Your task to perform on an android device: change timer sound Image 0: 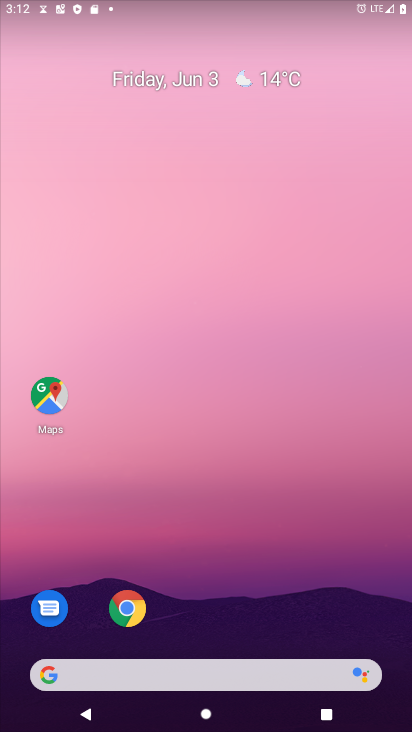
Step 0: drag from (223, 664) to (193, 208)
Your task to perform on an android device: change timer sound Image 1: 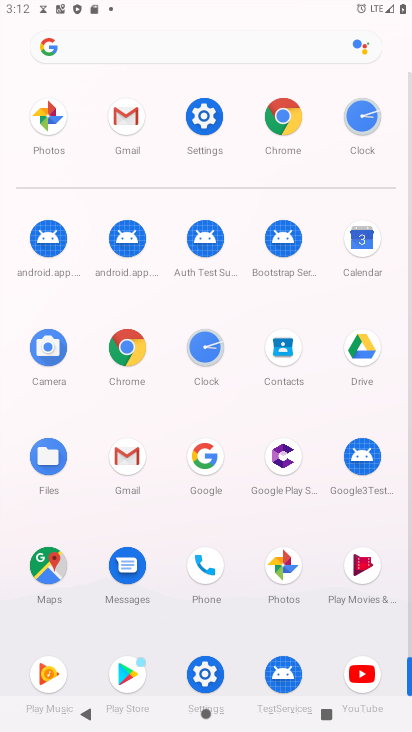
Step 1: click (348, 120)
Your task to perform on an android device: change timer sound Image 2: 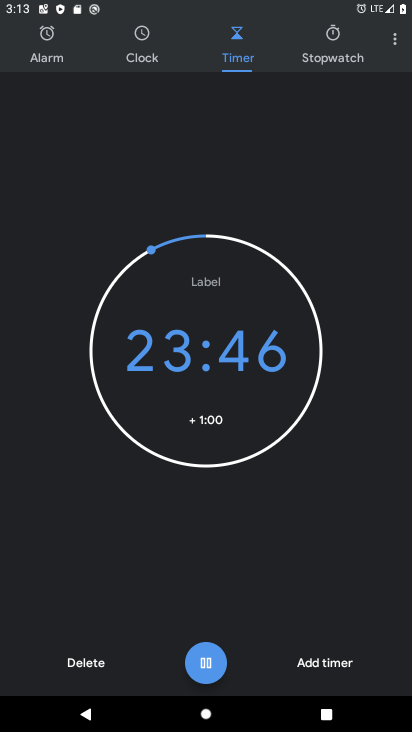
Step 2: click (395, 45)
Your task to perform on an android device: change timer sound Image 3: 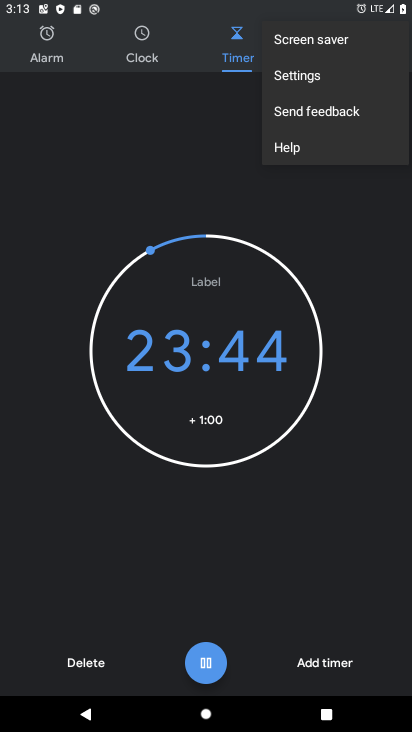
Step 3: click (309, 82)
Your task to perform on an android device: change timer sound Image 4: 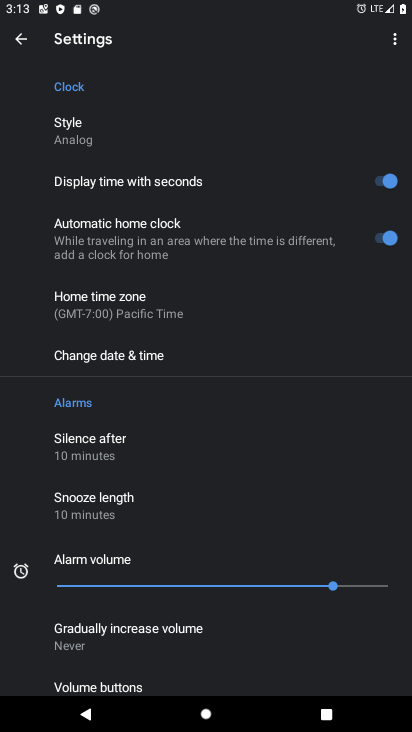
Step 4: drag from (190, 524) to (213, 11)
Your task to perform on an android device: change timer sound Image 5: 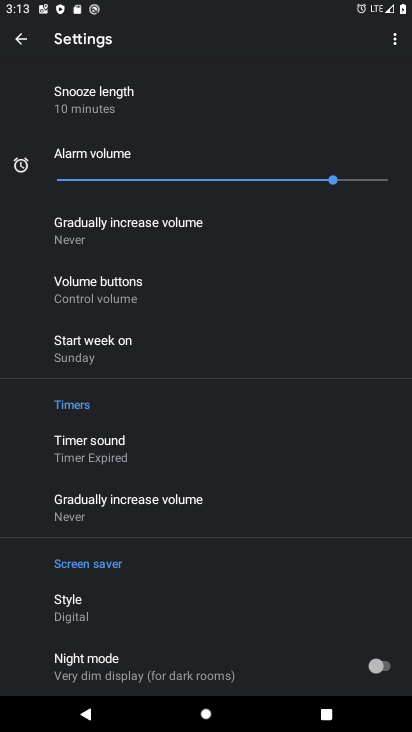
Step 5: click (102, 437)
Your task to perform on an android device: change timer sound Image 6: 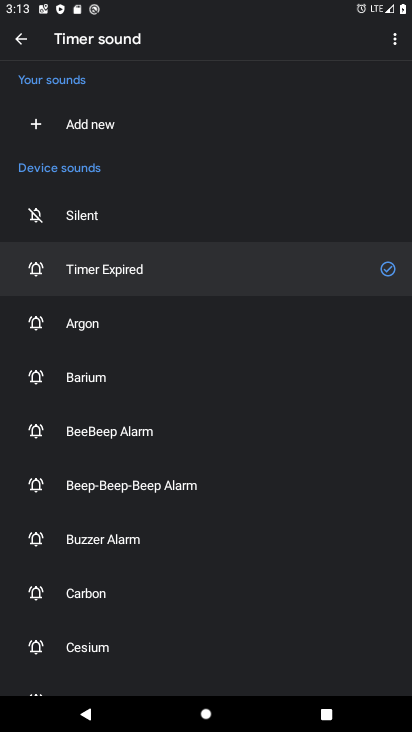
Step 6: click (121, 645)
Your task to perform on an android device: change timer sound Image 7: 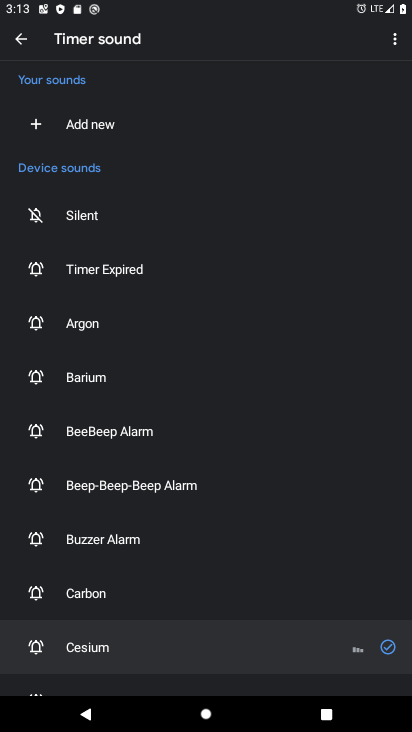
Step 7: task complete